Your task to perform on an android device: Search for Mexican restaurants on Maps Image 0: 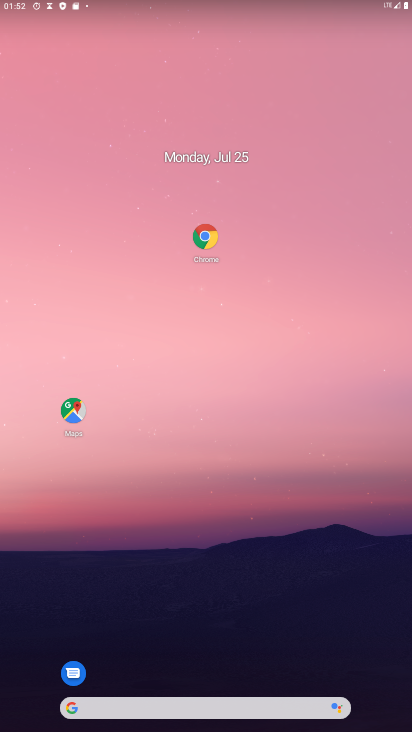
Step 0: drag from (283, 718) to (197, 13)
Your task to perform on an android device: Search for Mexican restaurants on Maps Image 1: 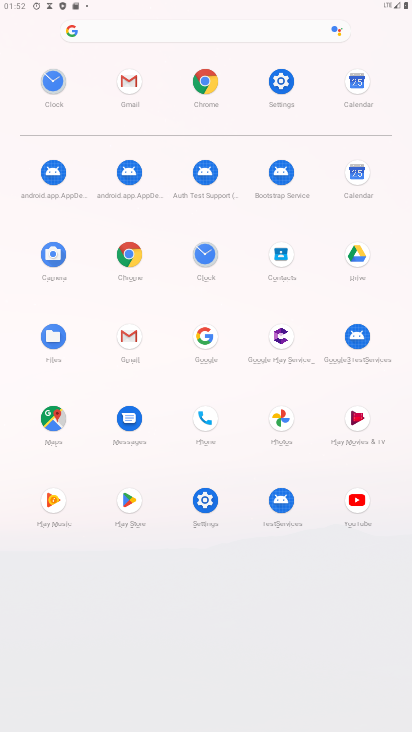
Step 1: click (51, 416)
Your task to perform on an android device: Search for Mexican restaurants on Maps Image 2: 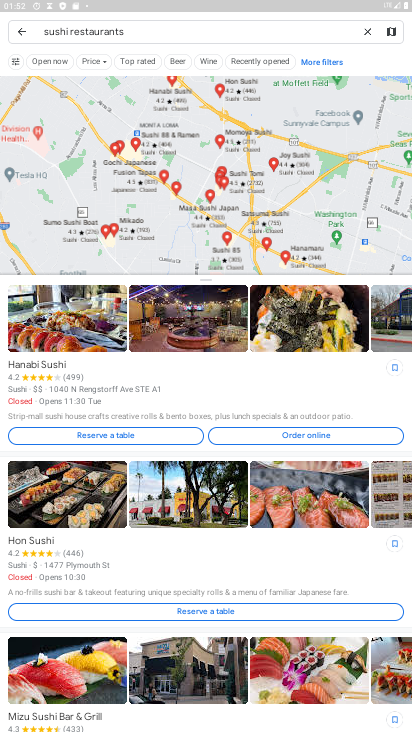
Step 2: click (368, 34)
Your task to perform on an android device: Search for Mexican restaurants on Maps Image 3: 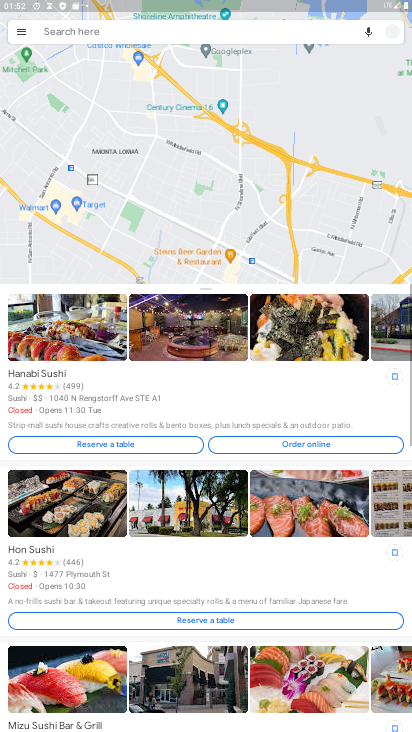
Step 3: click (121, 32)
Your task to perform on an android device: Search for Mexican restaurants on Maps Image 4: 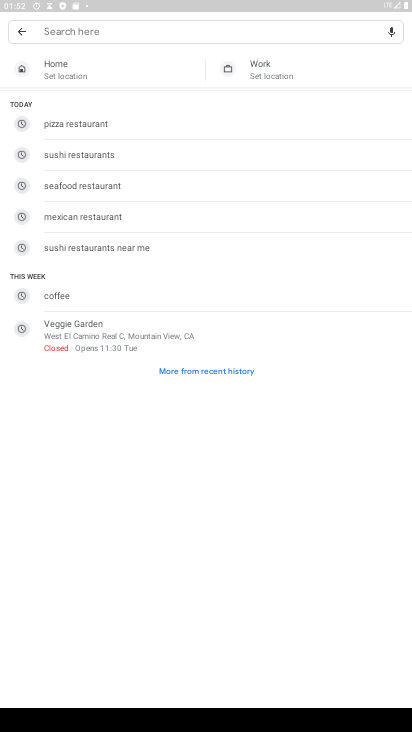
Step 4: click (95, 213)
Your task to perform on an android device: Search for Mexican restaurants on Maps Image 5: 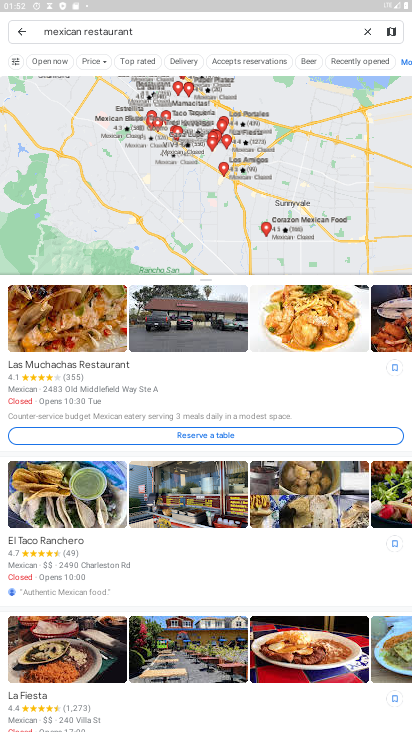
Step 5: task complete